Your task to perform on an android device: Open display settings Image 0: 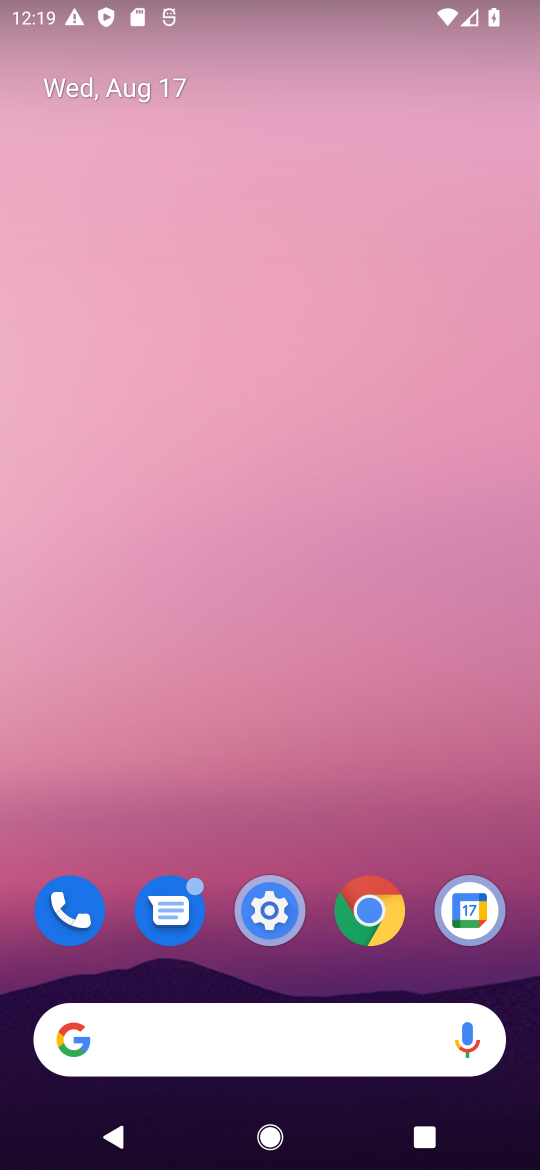
Step 0: click (244, 920)
Your task to perform on an android device: Open display settings Image 1: 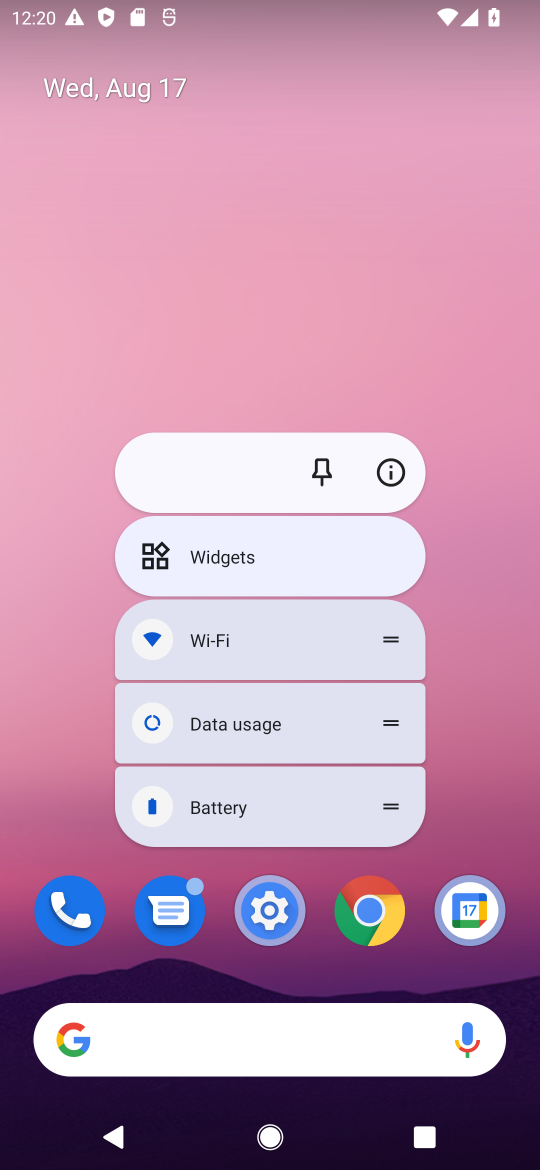
Step 1: click (262, 912)
Your task to perform on an android device: Open display settings Image 2: 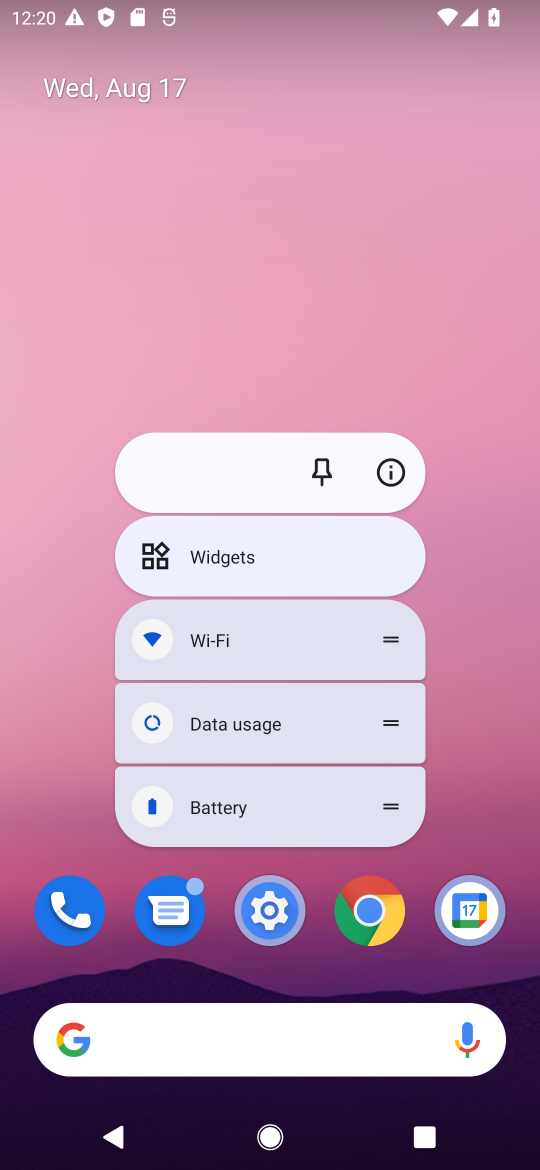
Step 2: click (275, 902)
Your task to perform on an android device: Open display settings Image 3: 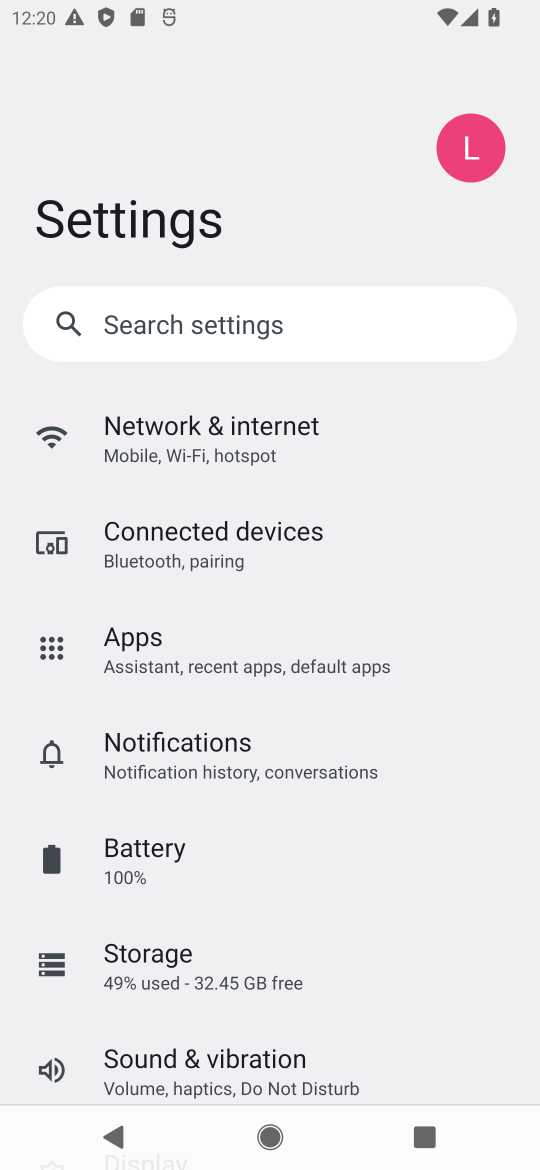
Step 3: drag from (259, 962) to (372, 327)
Your task to perform on an android device: Open display settings Image 4: 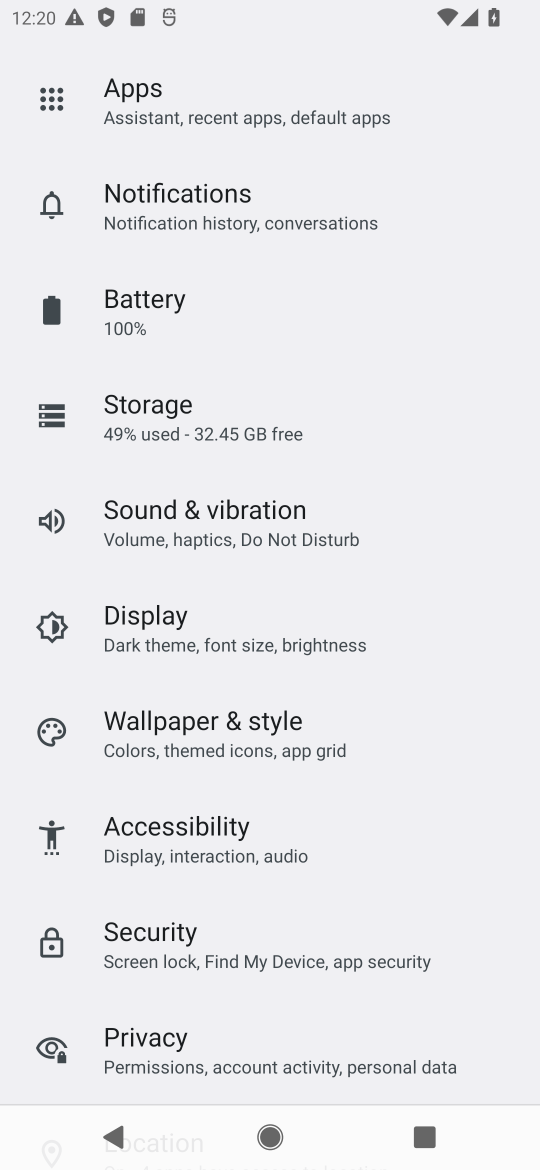
Step 4: click (180, 621)
Your task to perform on an android device: Open display settings Image 5: 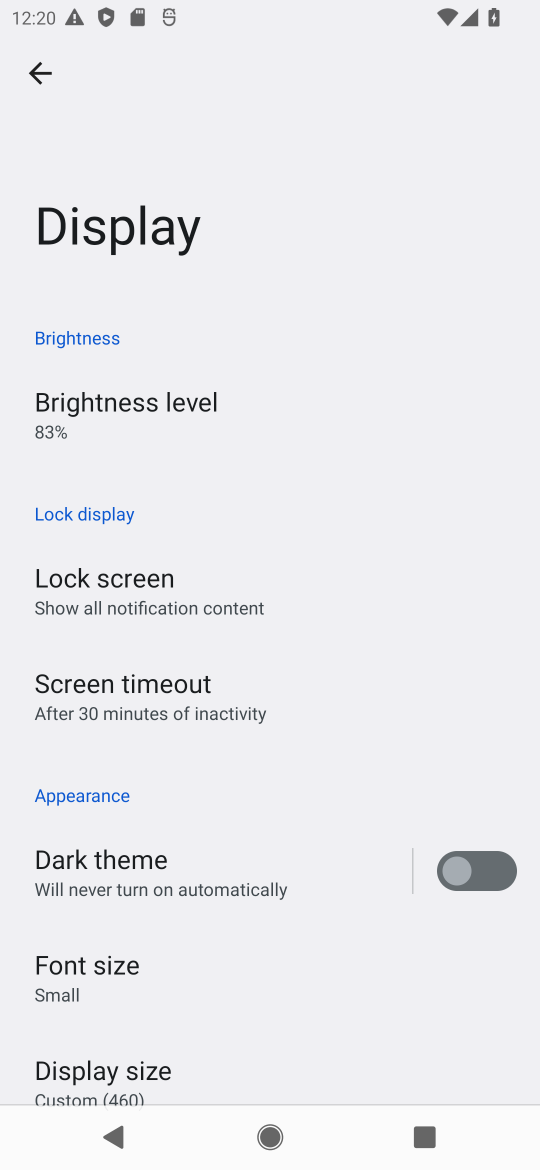
Step 5: task complete